Your task to perform on an android device: turn off sleep mode Image 0: 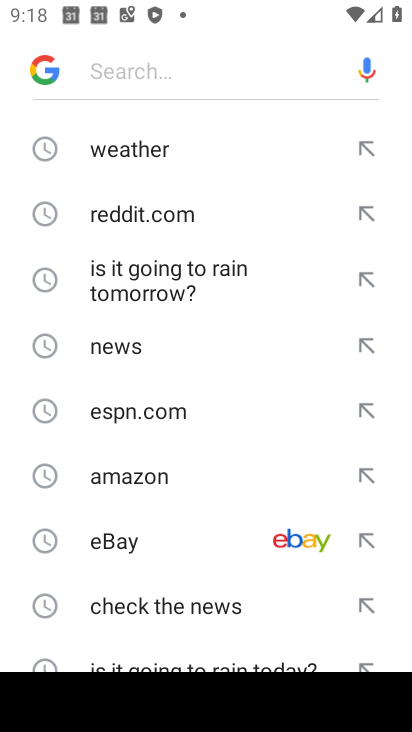
Step 0: press home button
Your task to perform on an android device: turn off sleep mode Image 1: 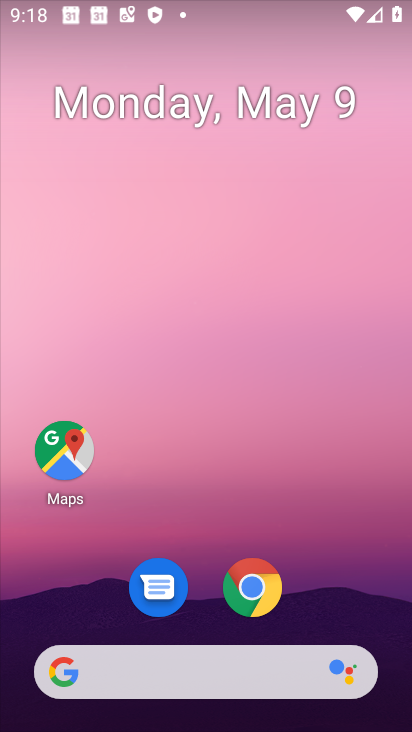
Step 1: drag from (196, 608) to (155, 136)
Your task to perform on an android device: turn off sleep mode Image 2: 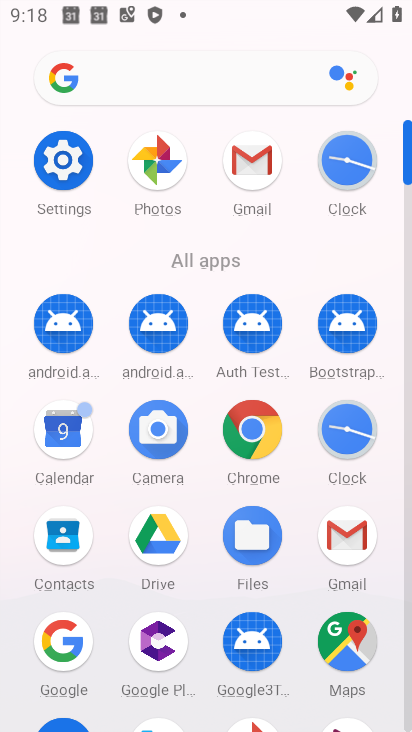
Step 2: click (59, 153)
Your task to perform on an android device: turn off sleep mode Image 3: 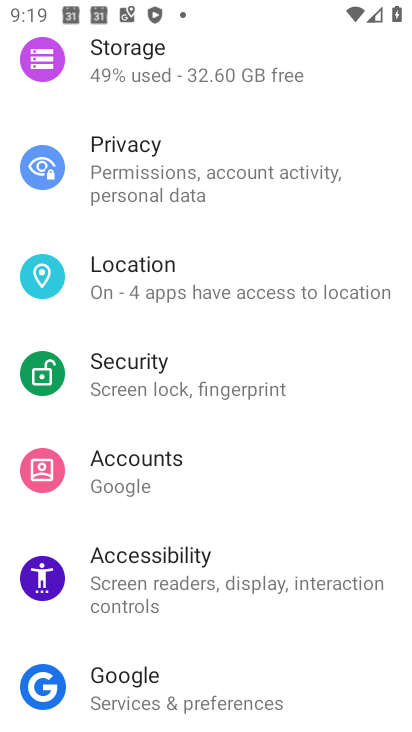
Step 3: task complete